Your task to perform on an android device: Open Reddit.com Image 0: 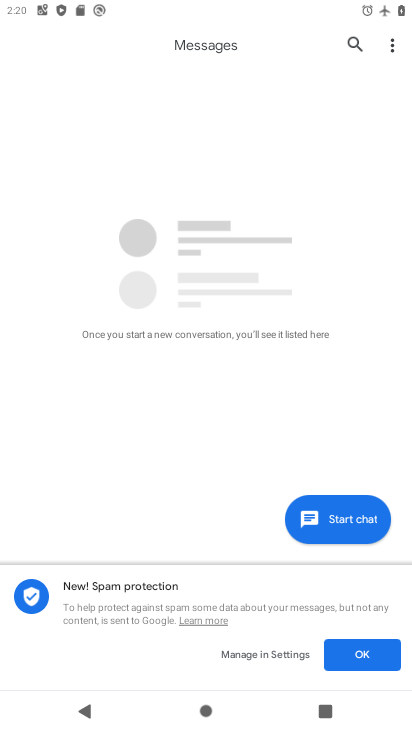
Step 0: press home button
Your task to perform on an android device: Open Reddit.com Image 1: 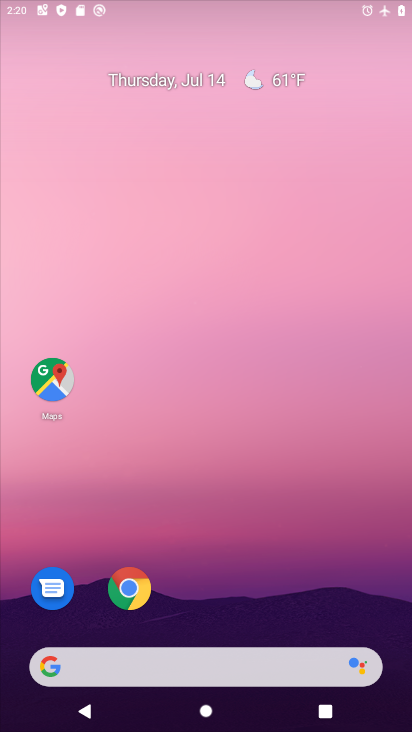
Step 1: drag from (202, 609) to (200, 270)
Your task to perform on an android device: Open Reddit.com Image 2: 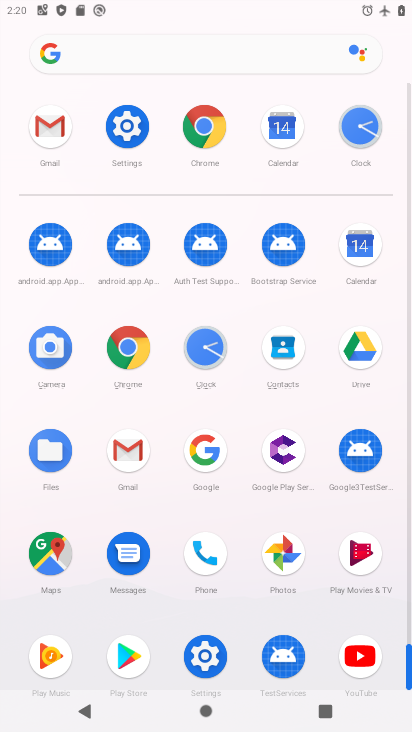
Step 2: click (200, 116)
Your task to perform on an android device: Open Reddit.com Image 3: 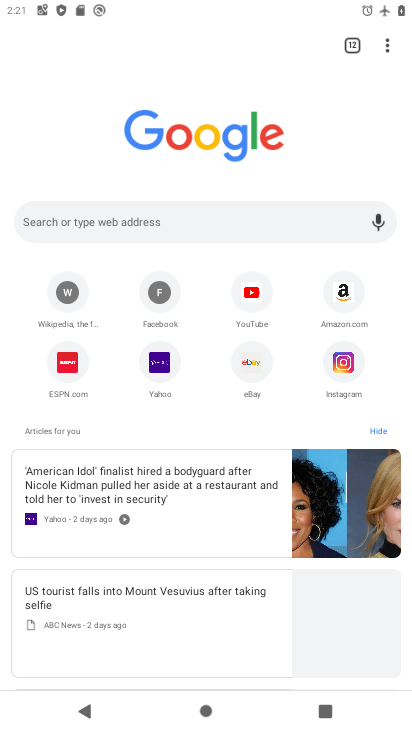
Step 3: click (154, 211)
Your task to perform on an android device: Open Reddit.com Image 4: 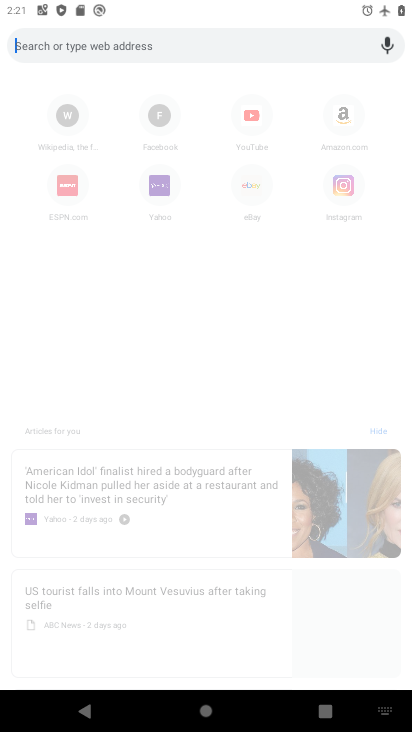
Step 4: type " Reddit.com "
Your task to perform on an android device: Open Reddit.com Image 5: 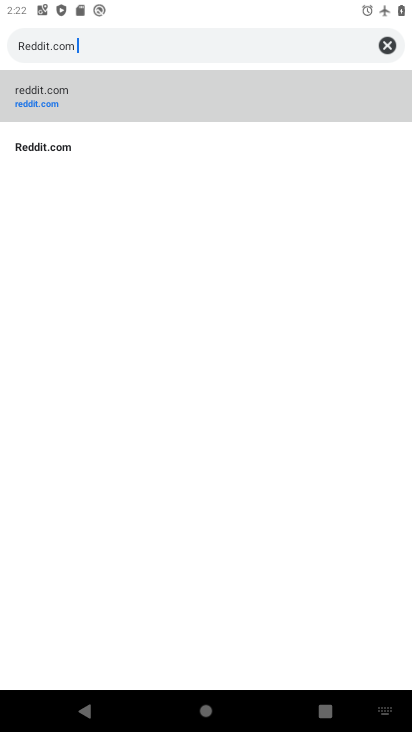
Step 5: click (141, 83)
Your task to perform on an android device: Open Reddit.com Image 6: 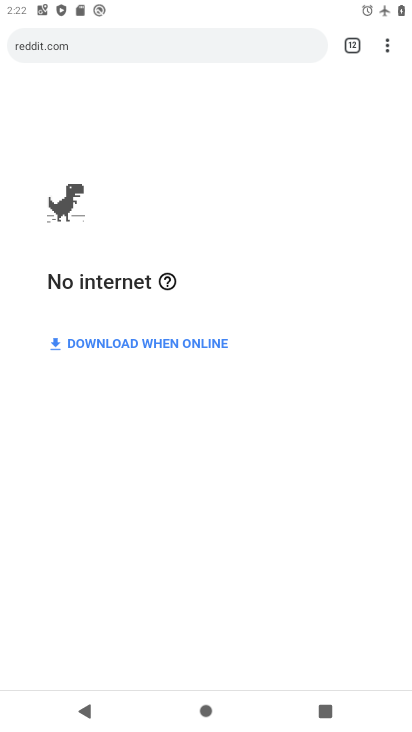
Step 6: task complete